Your task to perform on an android device: turn vacation reply on in the gmail app Image 0: 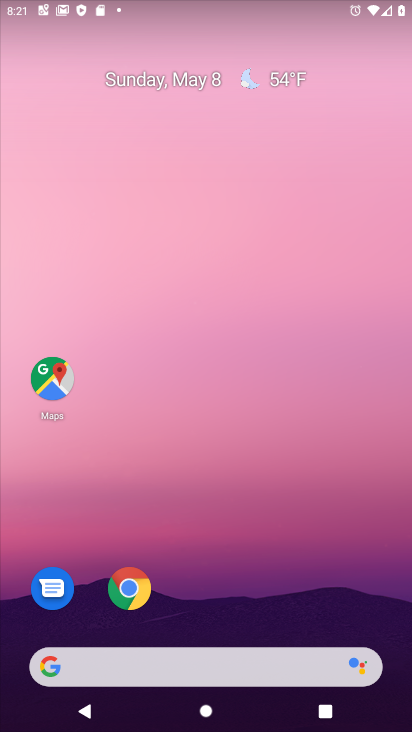
Step 0: click (375, 475)
Your task to perform on an android device: turn vacation reply on in the gmail app Image 1: 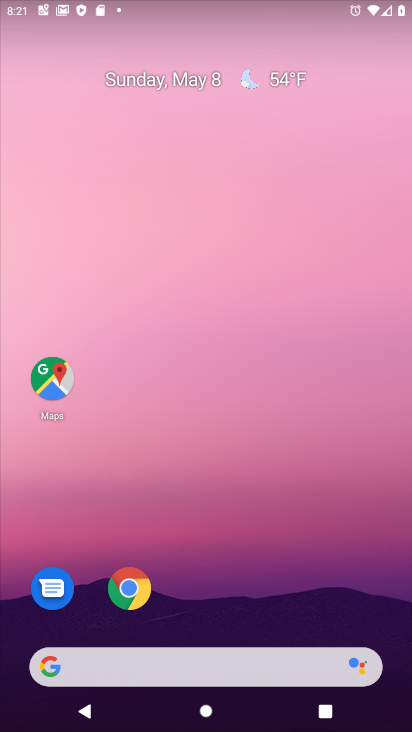
Step 1: drag from (273, 589) to (267, 63)
Your task to perform on an android device: turn vacation reply on in the gmail app Image 2: 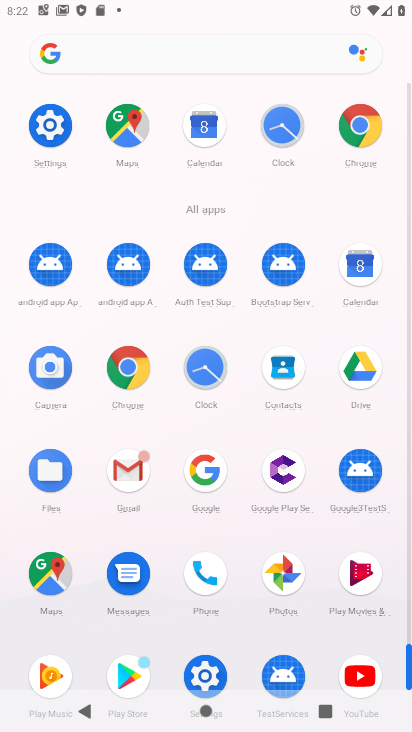
Step 2: click (114, 467)
Your task to perform on an android device: turn vacation reply on in the gmail app Image 3: 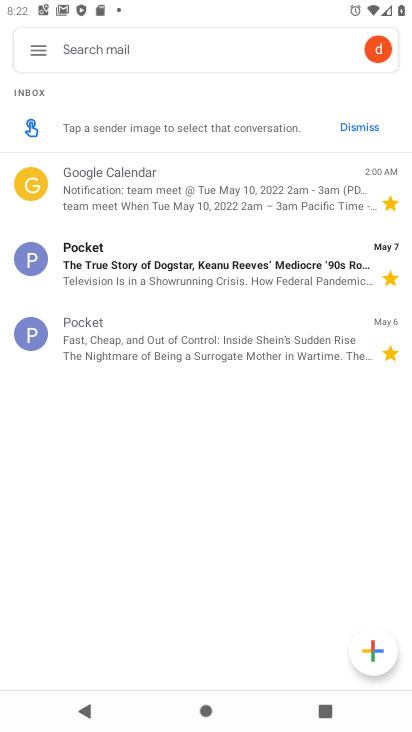
Step 3: click (39, 44)
Your task to perform on an android device: turn vacation reply on in the gmail app Image 4: 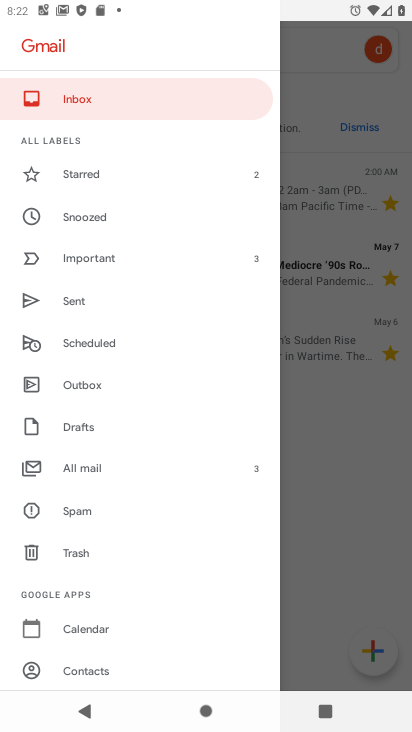
Step 4: drag from (93, 563) to (99, 343)
Your task to perform on an android device: turn vacation reply on in the gmail app Image 5: 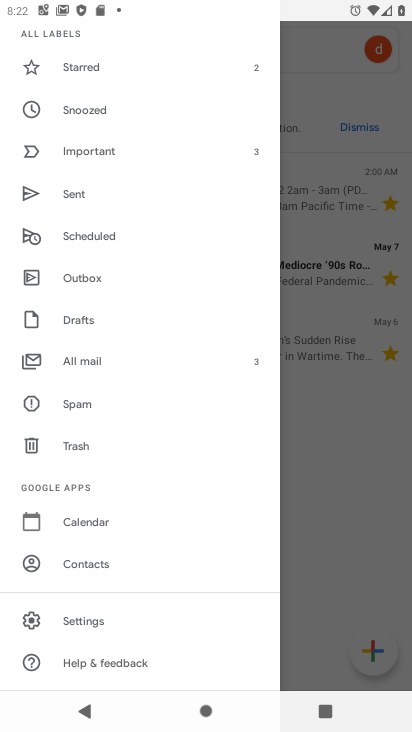
Step 5: click (111, 620)
Your task to perform on an android device: turn vacation reply on in the gmail app Image 6: 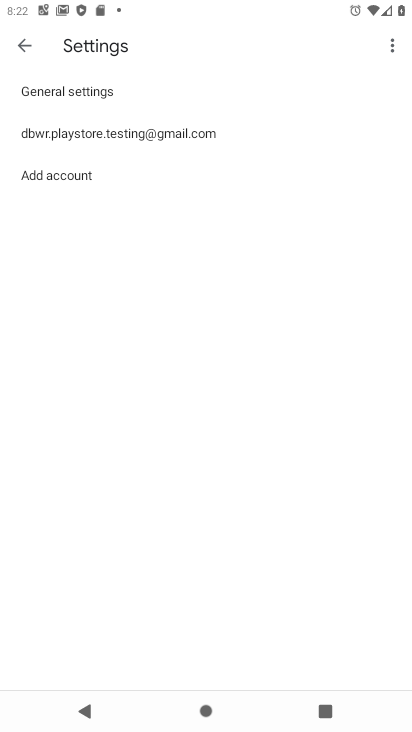
Step 6: click (92, 135)
Your task to perform on an android device: turn vacation reply on in the gmail app Image 7: 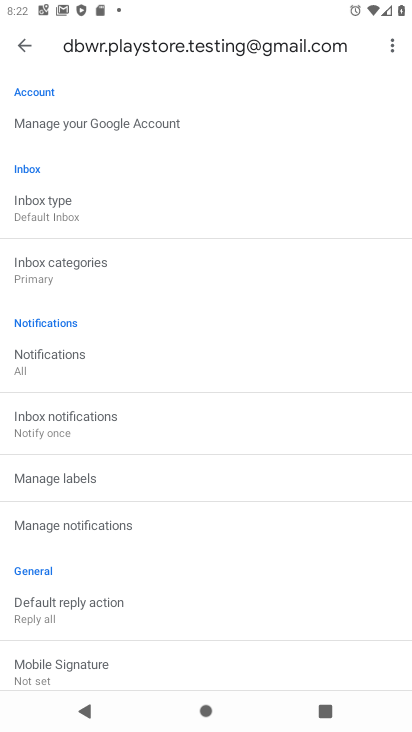
Step 7: drag from (187, 508) to (152, 269)
Your task to perform on an android device: turn vacation reply on in the gmail app Image 8: 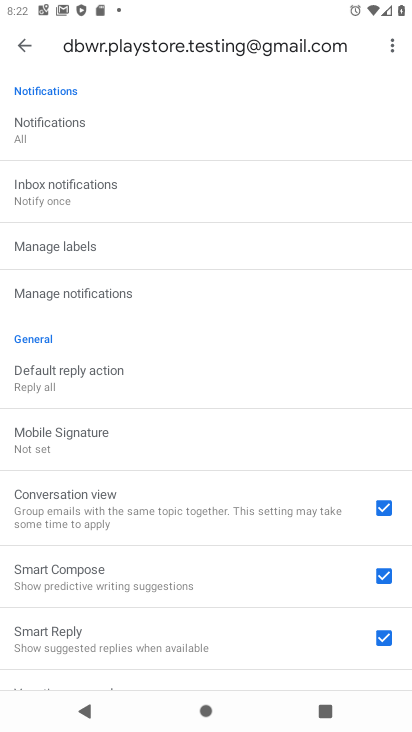
Step 8: drag from (160, 481) to (140, 223)
Your task to perform on an android device: turn vacation reply on in the gmail app Image 9: 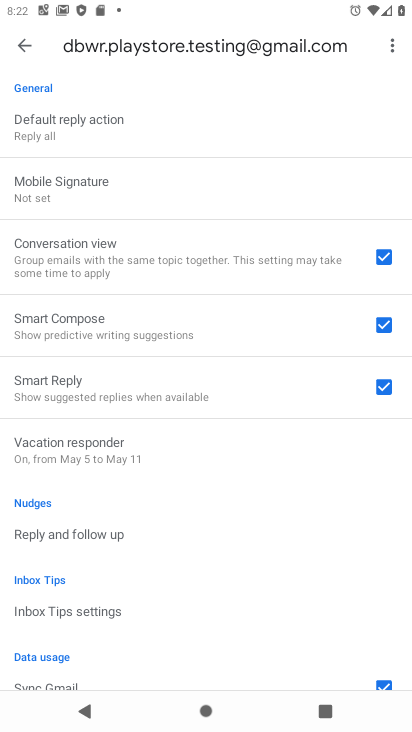
Step 9: click (134, 450)
Your task to perform on an android device: turn vacation reply on in the gmail app Image 10: 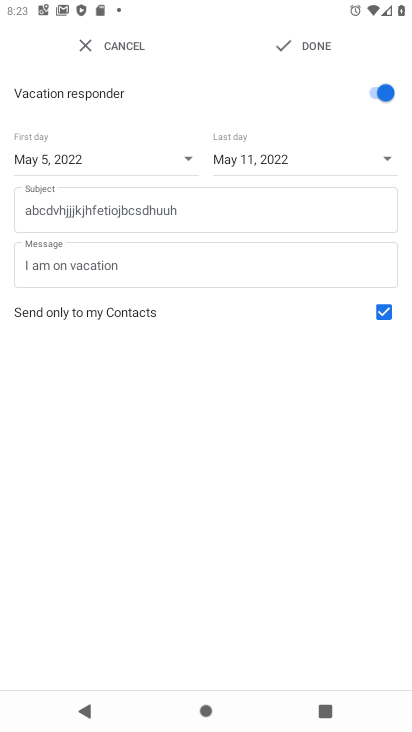
Step 10: click (304, 51)
Your task to perform on an android device: turn vacation reply on in the gmail app Image 11: 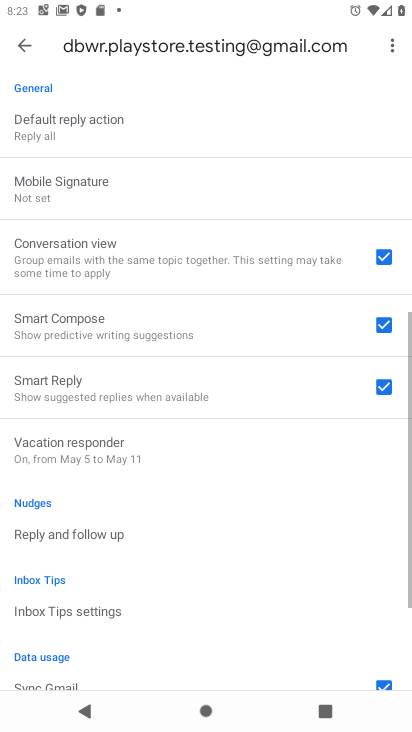
Step 11: task complete